Your task to perform on an android device: Go to internet settings Image 0: 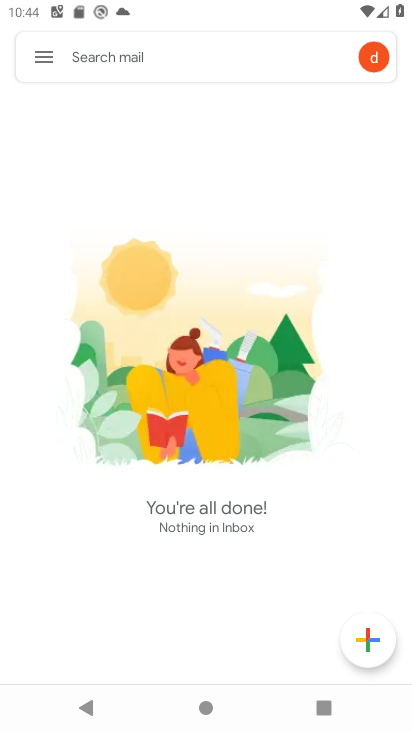
Step 0: press home button
Your task to perform on an android device: Go to internet settings Image 1: 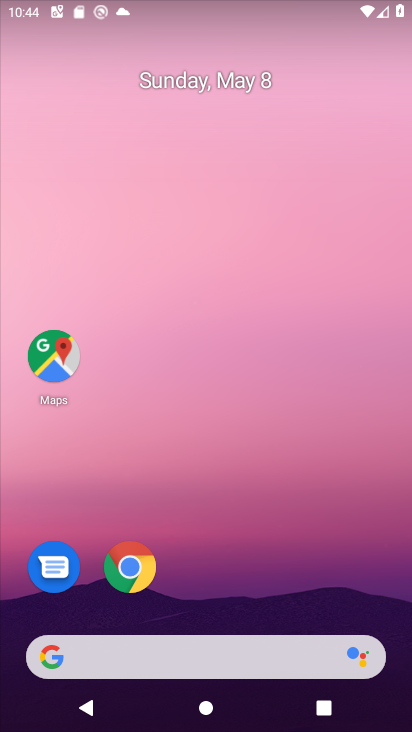
Step 1: drag from (217, 595) to (194, 210)
Your task to perform on an android device: Go to internet settings Image 2: 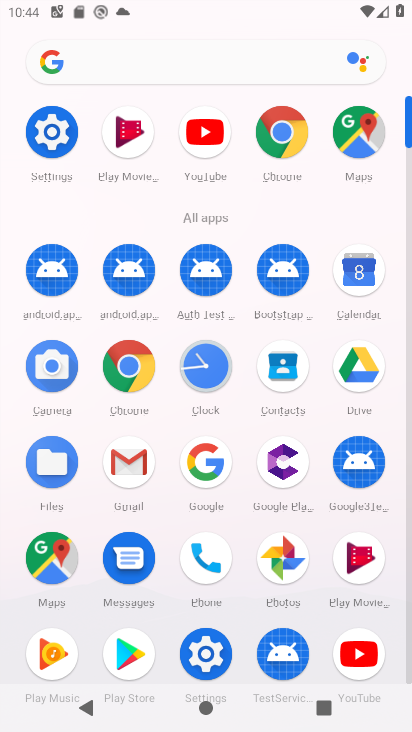
Step 2: click (52, 141)
Your task to perform on an android device: Go to internet settings Image 3: 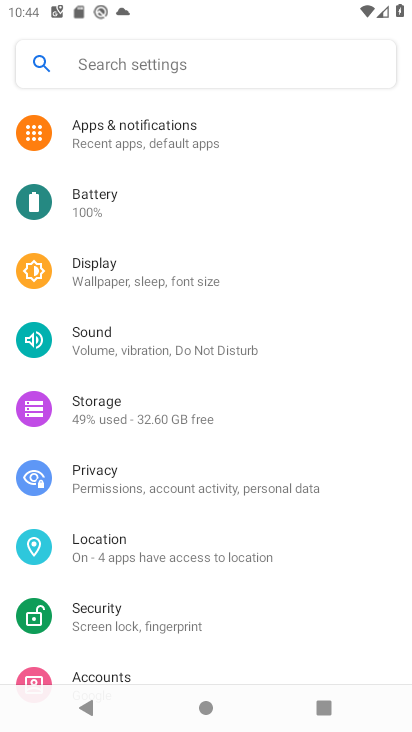
Step 3: drag from (200, 600) to (232, 266)
Your task to perform on an android device: Go to internet settings Image 4: 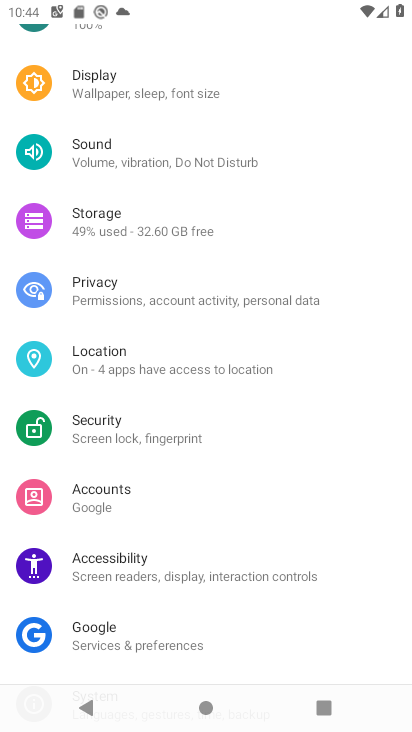
Step 4: drag from (217, 222) to (183, 505)
Your task to perform on an android device: Go to internet settings Image 5: 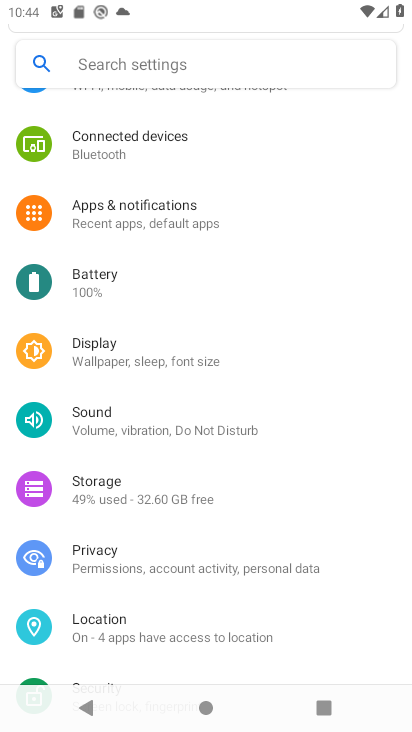
Step 5: drag from (240, 200) to (201, 464)
Your task to perform on an android device: Go to internet settings Image 6: 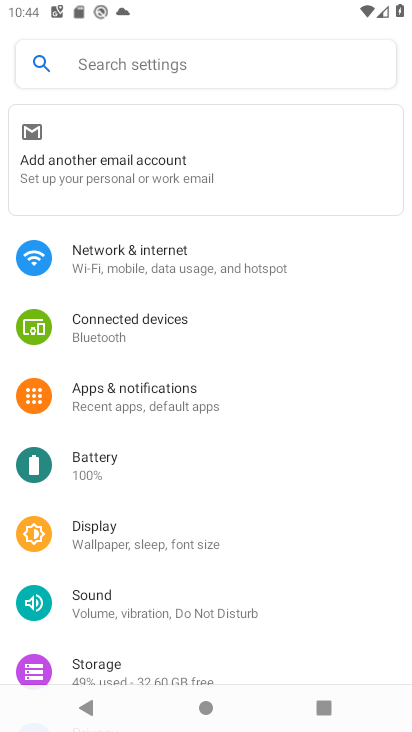
Step 6: click (133, 253)
Your task to perform on an android device: Go to internet settings Image 7: 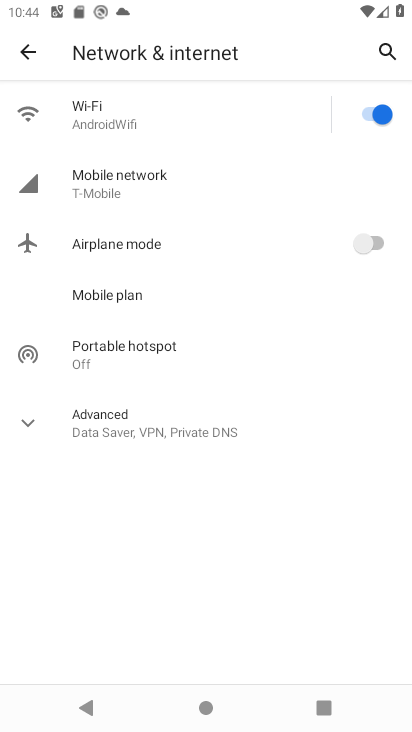
Step 7: click (164, 187)
Your task to perform on an android device: Go to internet settings Image 8: 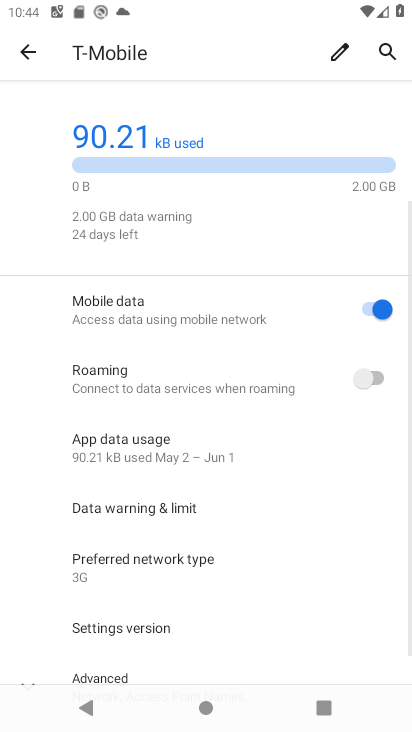
Step 8: task complete